Your task to perform on an android device: Go to notification settings Image 0: 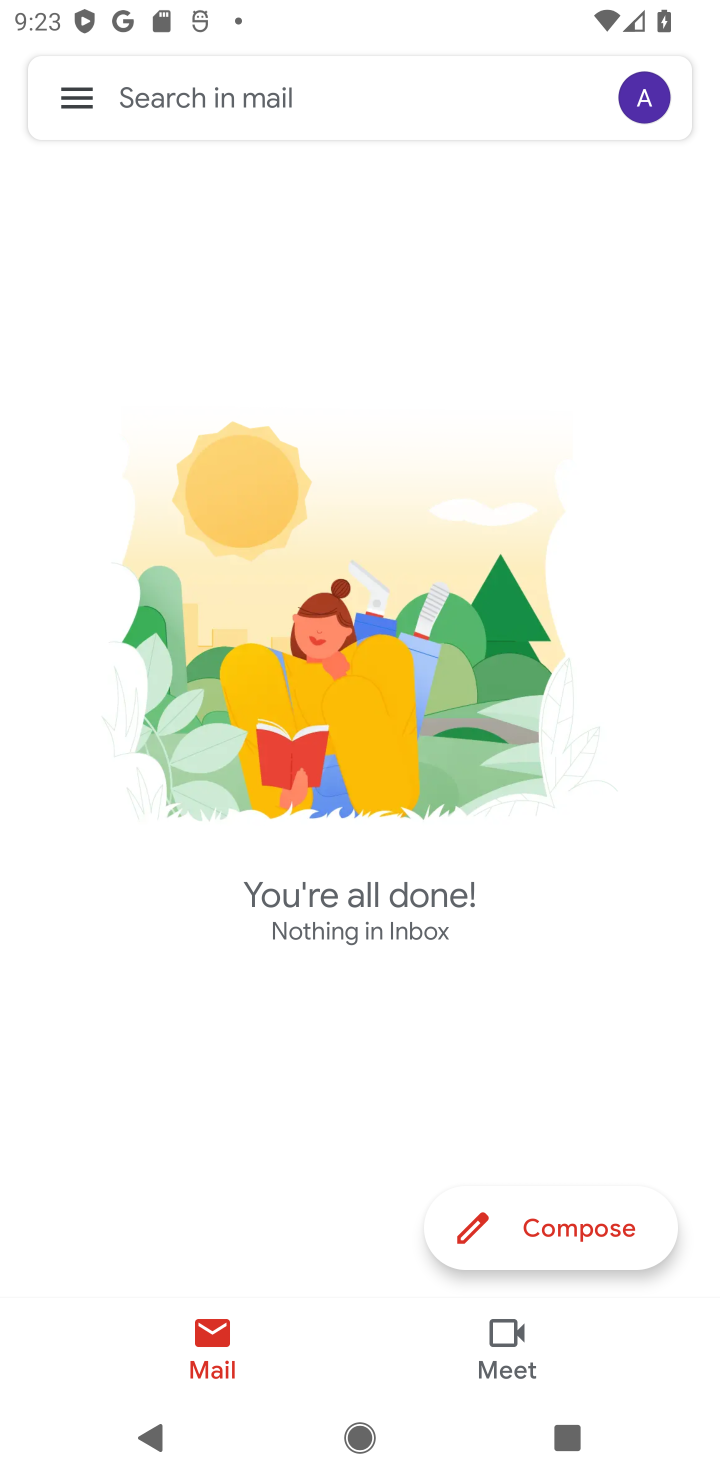
Step 0: press home button
Your task to perform on an android device: Go to notification settings Image 1: 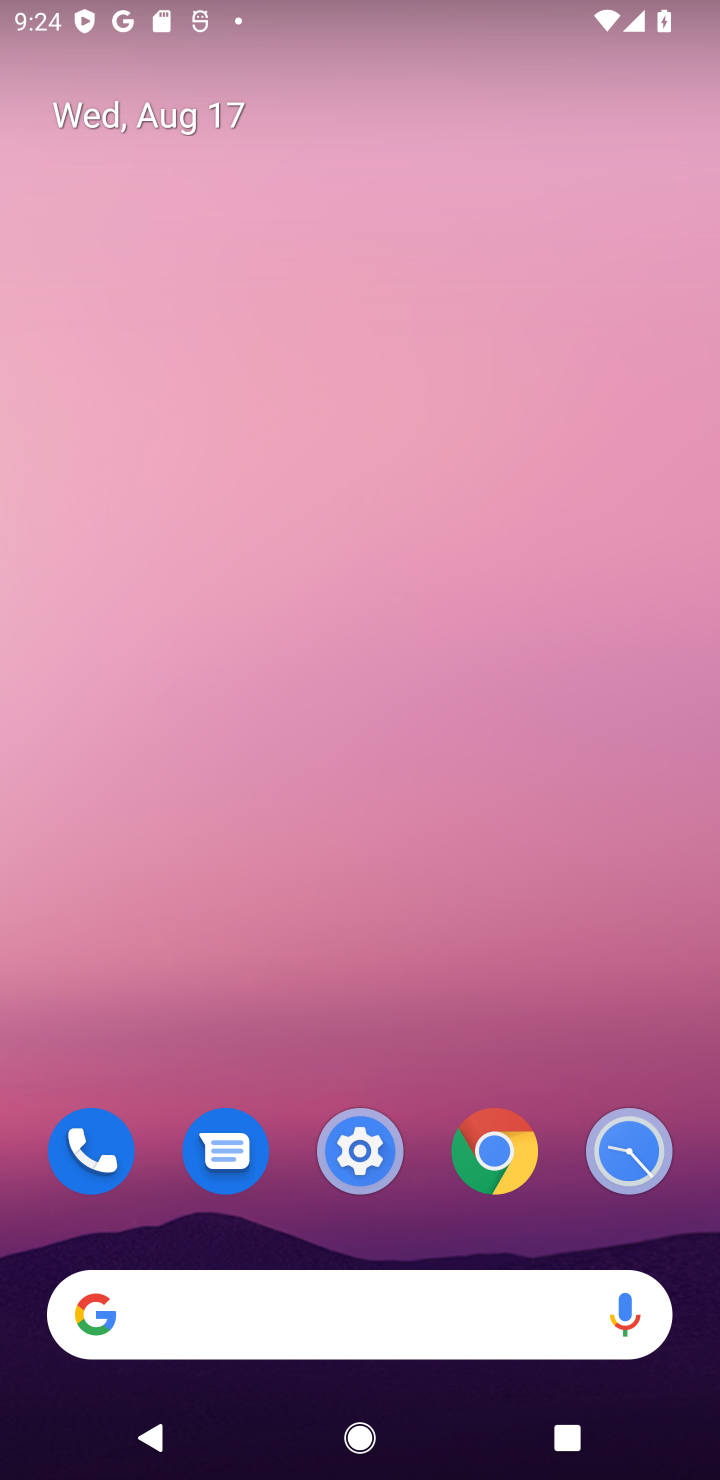
Step 1: click (368, 1155)
Your task to perform on an android device: Go to notification settings Image 2: 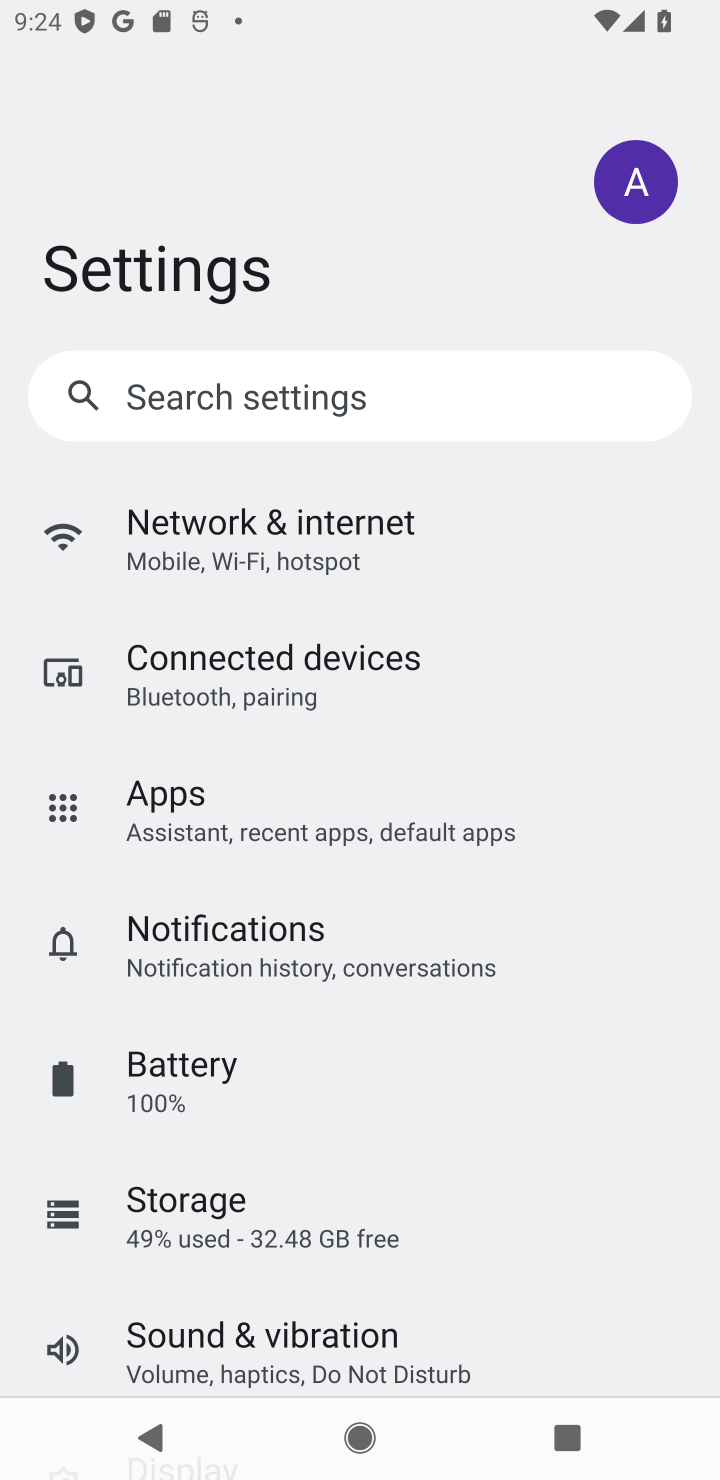
Step 2: click (205, 957)
Your task to perform on an android device: Go to notification settings Image 3: 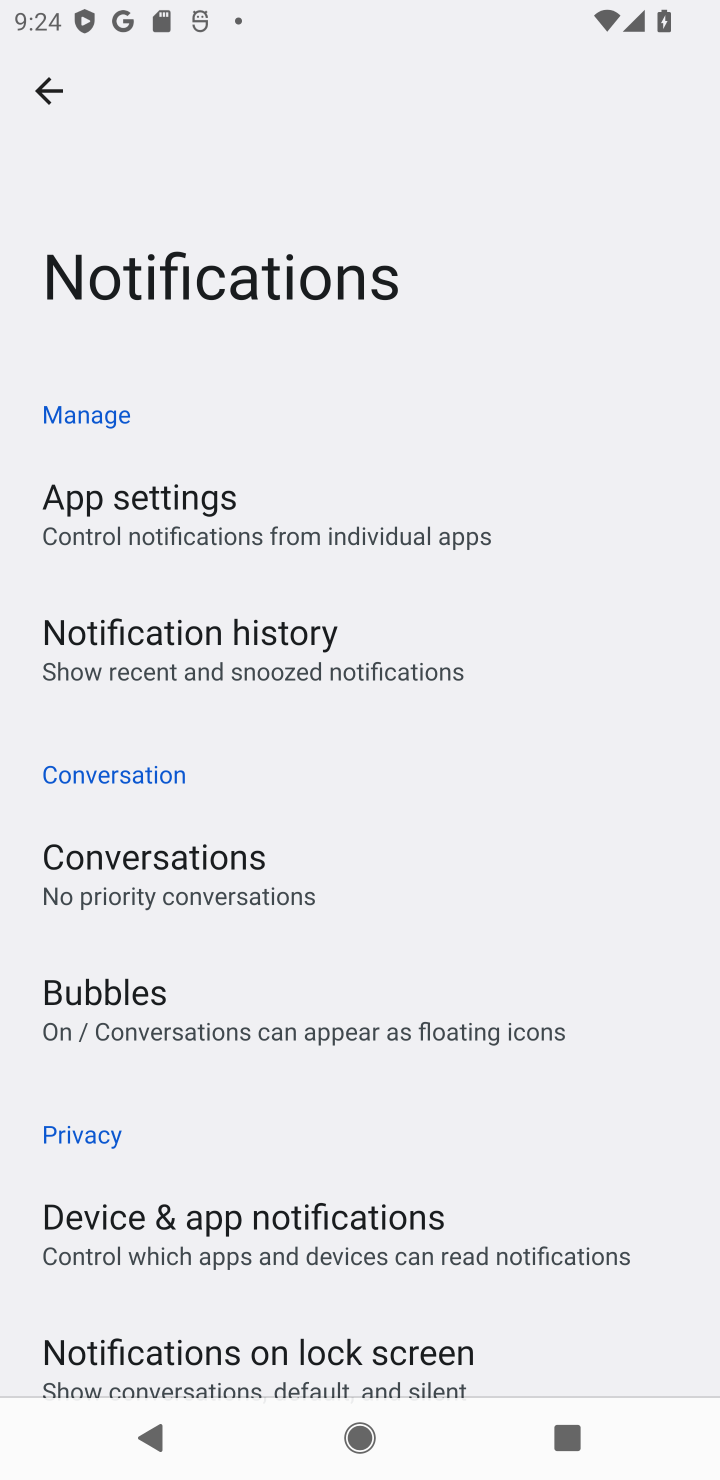
Step 3: task complete